Your task to perform on an android device: Do I have any events today? Image 0: 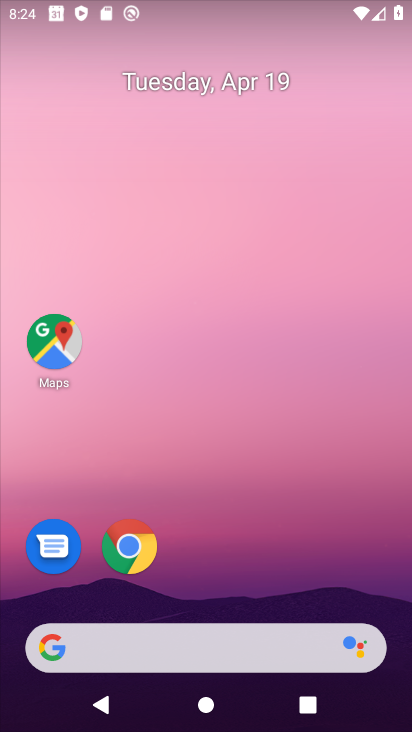
Step 0: drag from (12, 683) to (309, 201)
Your task to perform on an android device: Do I have any events today? Image 1: 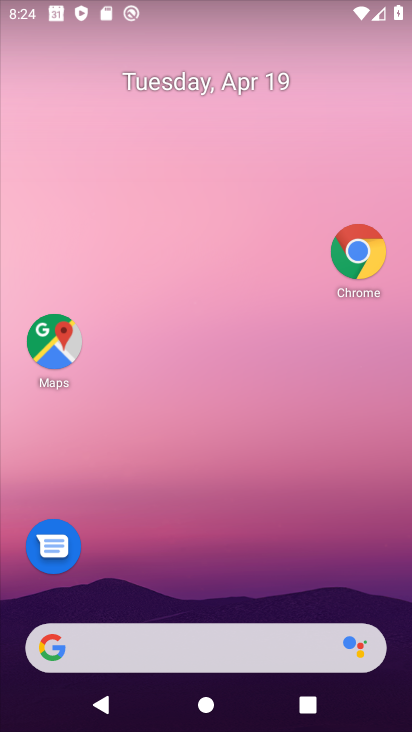
Step 1: drag from (99, 509) to (289, 182)
Your task to perform on an android device: Do I have any events today? Image 2: 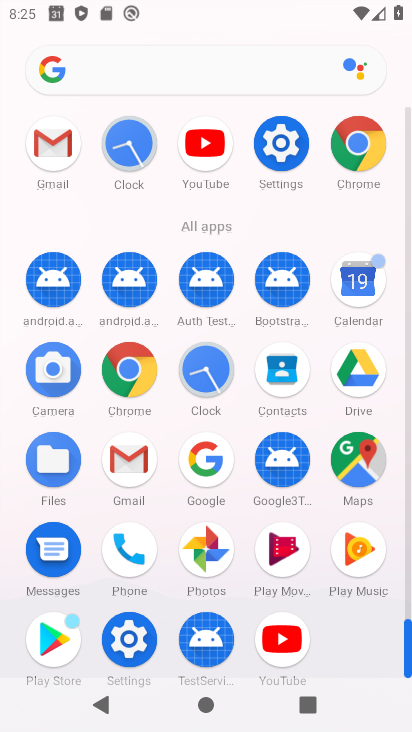
Step 2: click (352, 267)
Your task to perform on an android device: Do I have any events today? Image 3: 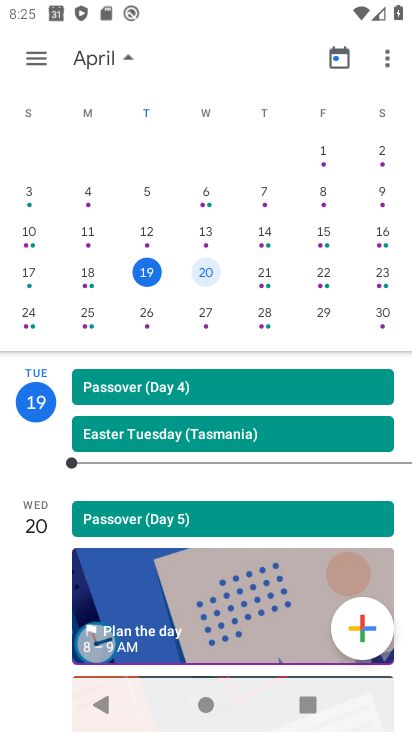
Step 3: click (204, 270)
Your task to perform on an android device: Do I have any events today? Image 4: 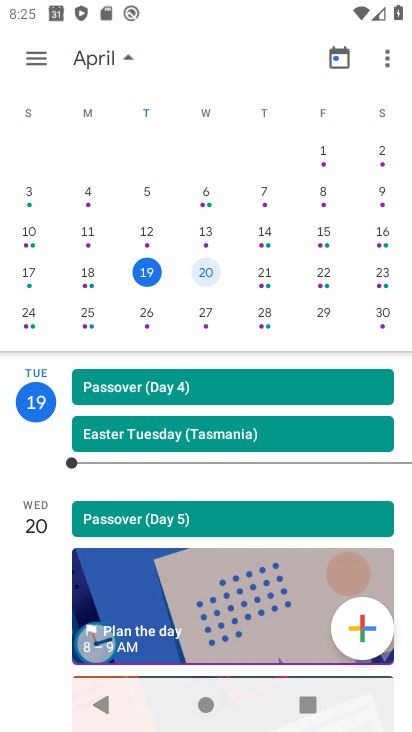
Step 4: click (204, 273)
Your task to perform on an android device: Do I have any events today? Image 5: 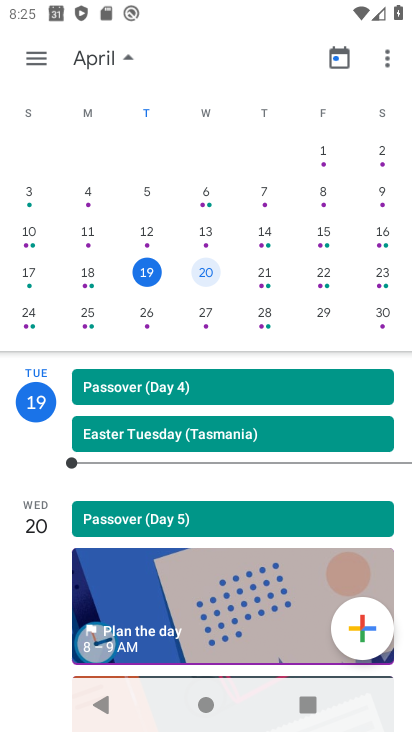
Step 5: click (268, 273)
Your task to perform on an android device: Do I have any events today? Image 6: 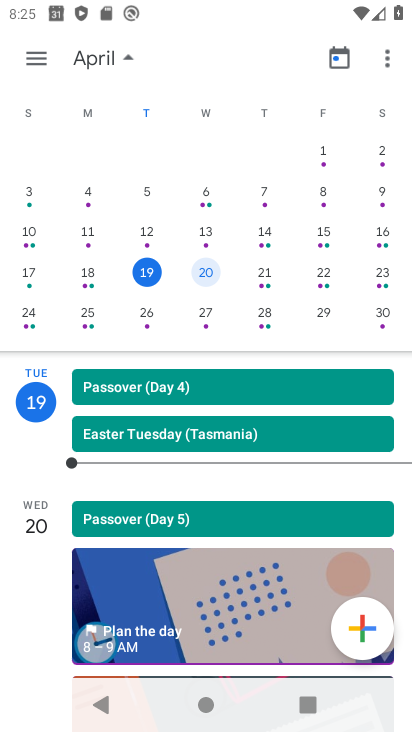
Step 6: click (183, 265)
Your task to perform on an android device: Do I have any events today? Image 7: 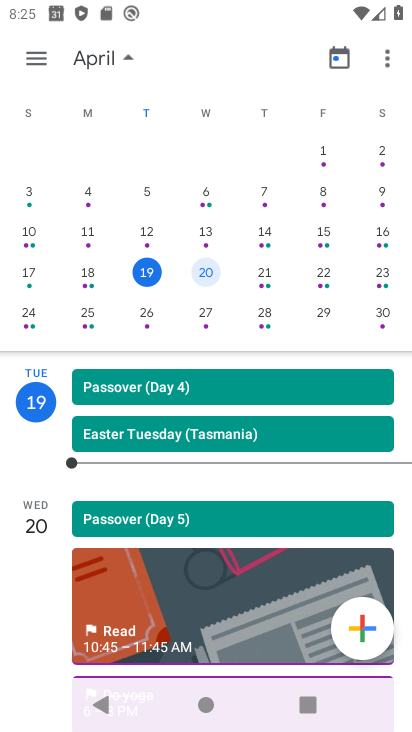
Step 7: click (212, 272)
Your task to perform on an android device: Do I have any events today? Image 8: 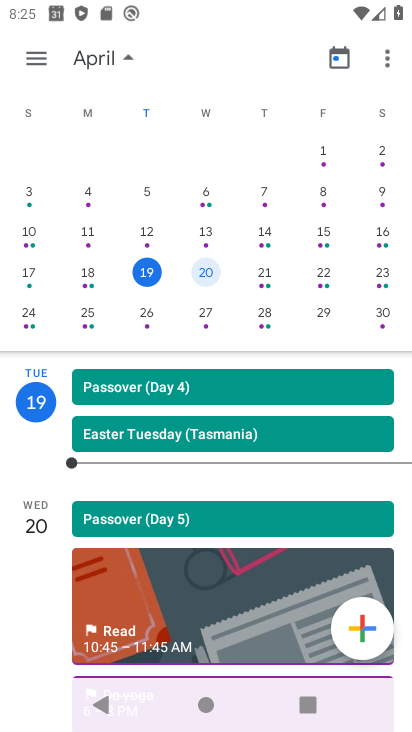
Step 8: task complete